Your task to perform on an android device: open the mobile data screen to see how much data has been used Image 0: 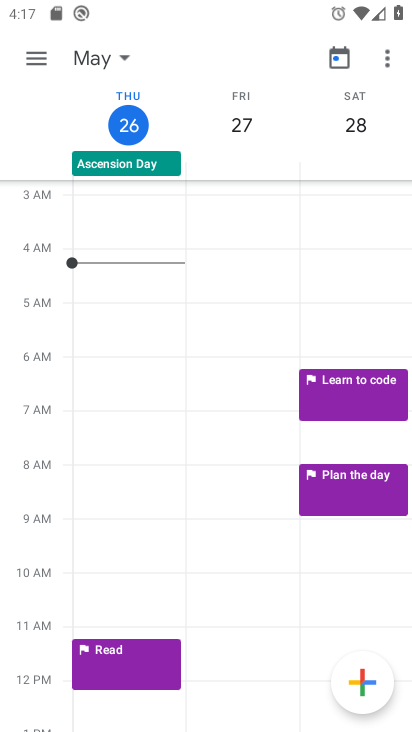
Step 0: press home button
Your task to perform on an android device: open the mobile data screen to see how much data has been used Image 1: 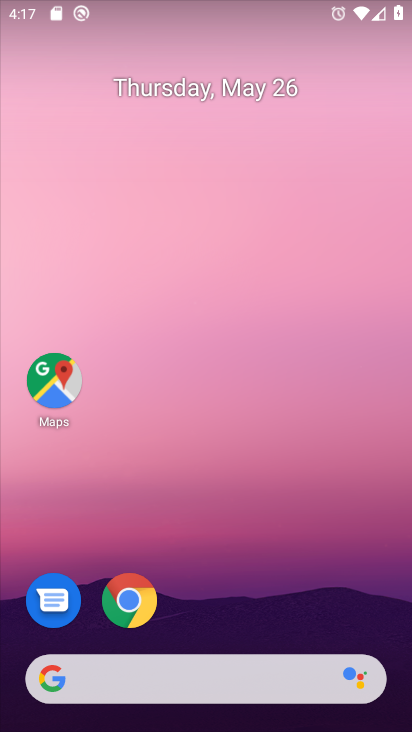
Step 1: drag from (194, 612) to (229, 187)
Your task to perform on an android device: open the mobile data screen to see how much data has been used Image 2: 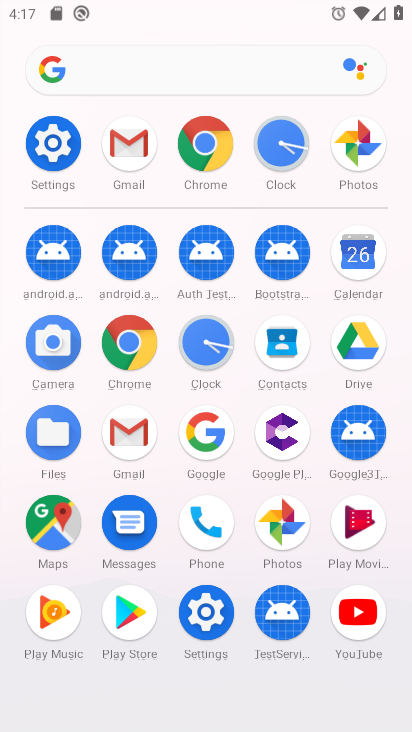
Step 2: click (47, 157)
Your task to perform on an android device: open the mobile data screen to see how much data has been used Image 3: 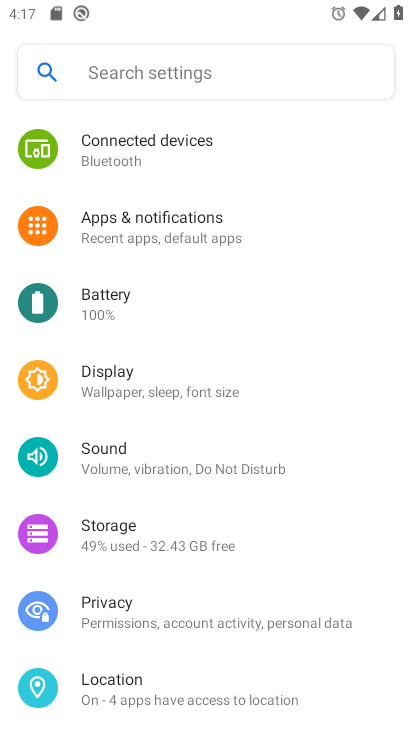
Step 3: drag from (157, 161) to (173, 343)
Your task to perform on an android device: open the mobile data screen to see how much data has been used Image 4: 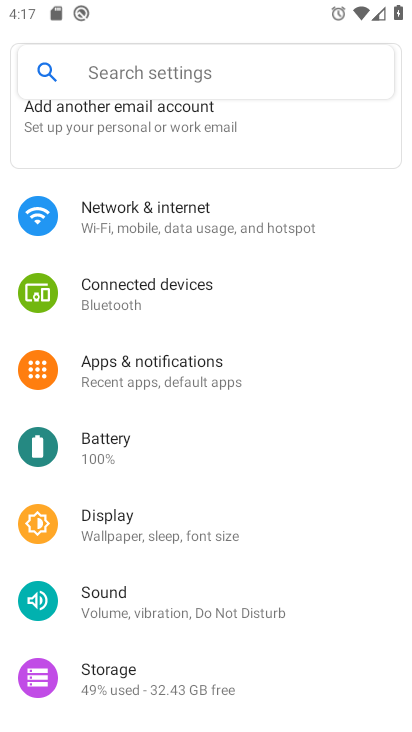
Step 4: click (158, 225)
Your task to perform on an android device: open the mobile data screen to see how much data has been used Image 5: 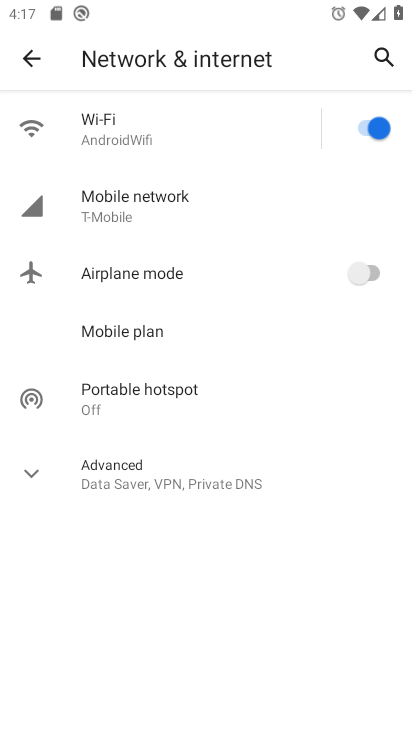
Step 5: click (155, 212)
Your task to perform on an android device: open the mobile data screen to see how much data has been used Image 6: 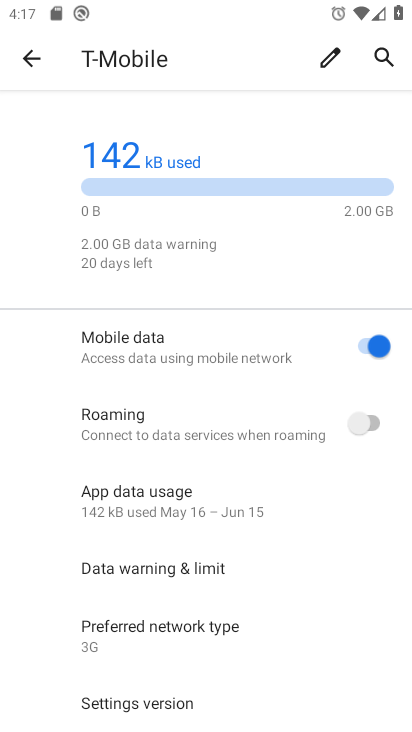
Step 6: click (188, 511)
Your task to perform on an android device: open the mobile data screen to see how much data has been used Image 7: 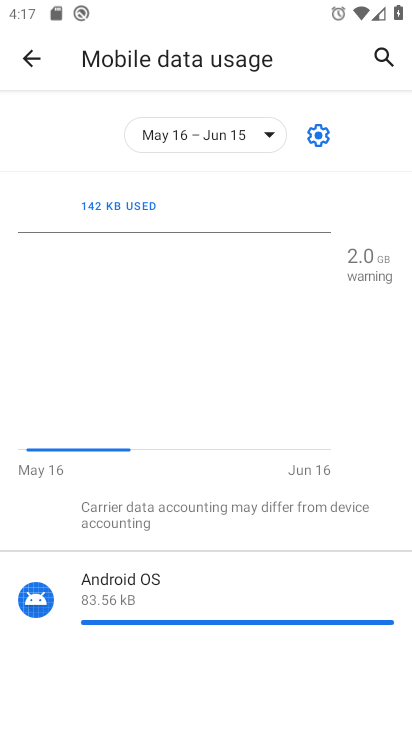
Step 7: task complete